Your task to perform on an android device: turn off translation in the chrome app Image 0: 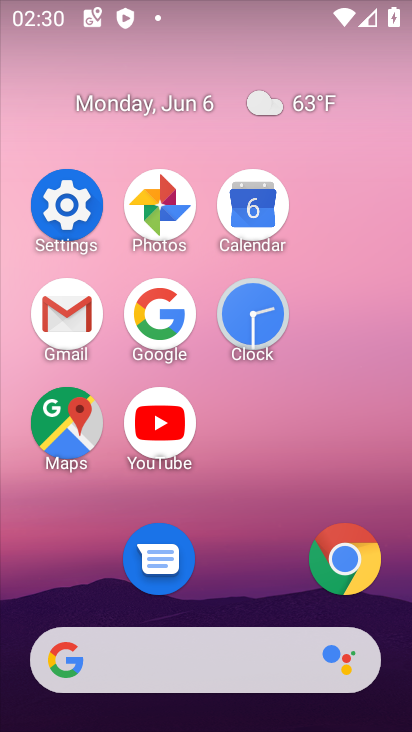
Step 0: click (356, 572)
Your task to perform on an android device: turn off translation in the chrome app Image 1: 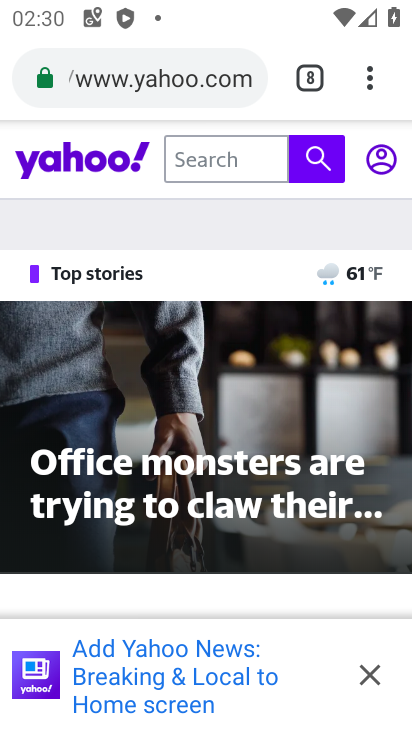
Step 1: click (377, 74)
Your task to perform on an android device: turn off translation in the chrome app Image 2: 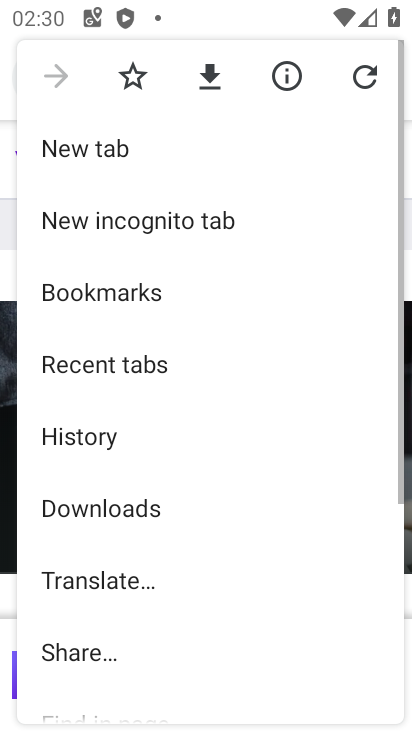
Step 2: drag from (165, 567) to (225, 222)
Your task to perform on an android device: turn off translation in the chrome app Image 3: 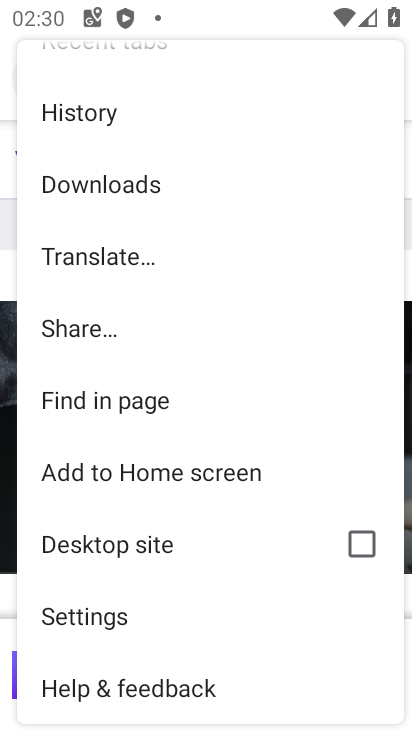
Step 3: click (151, 627)
Your task to perform on an android device: turn off translation in the chrome app Image 4: 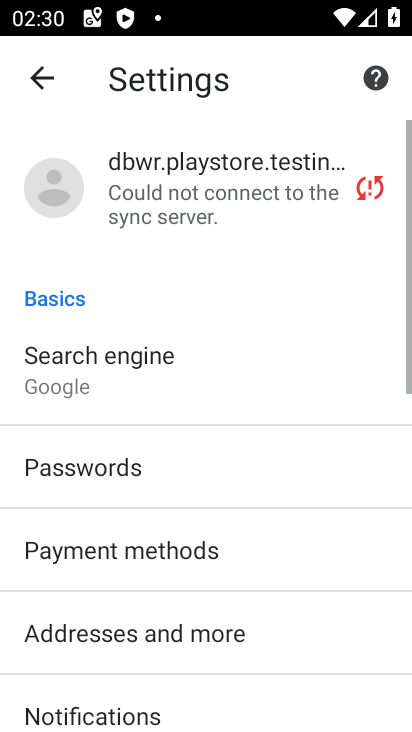
Step 4: drag from (142, 610) to (167, 255)
Your task to perform on an android device: turn off translation in the chrome app Image 5: 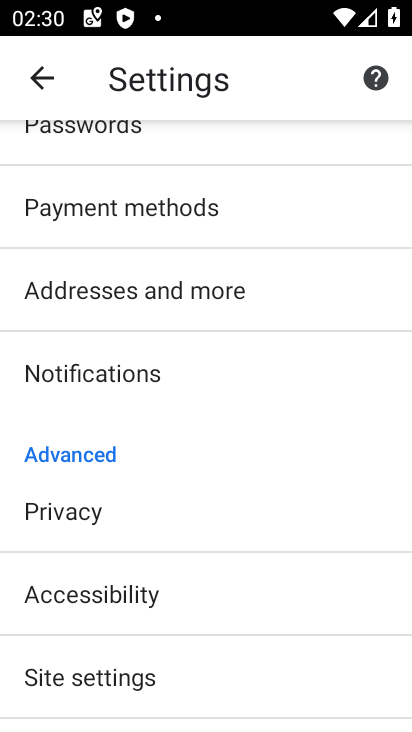
Step 5: drag from (178, 578) to (246, 246)
Your task to perform on an android device: turn off translation in the chrome app Image 6: 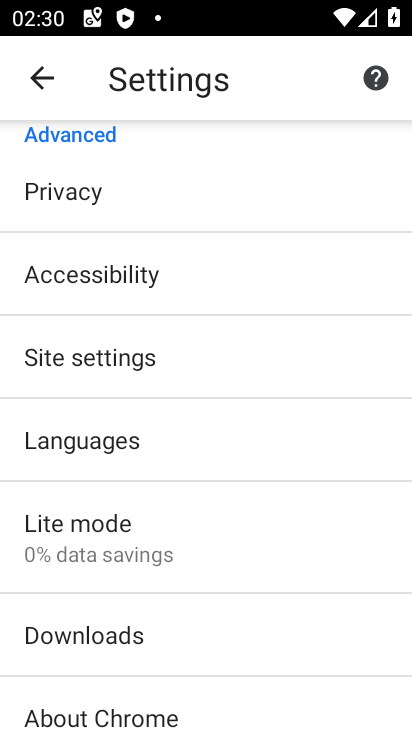
Step 6: click (178, 441)
Your task to perform on an android device: turn off translation in the chrome app Image 7: 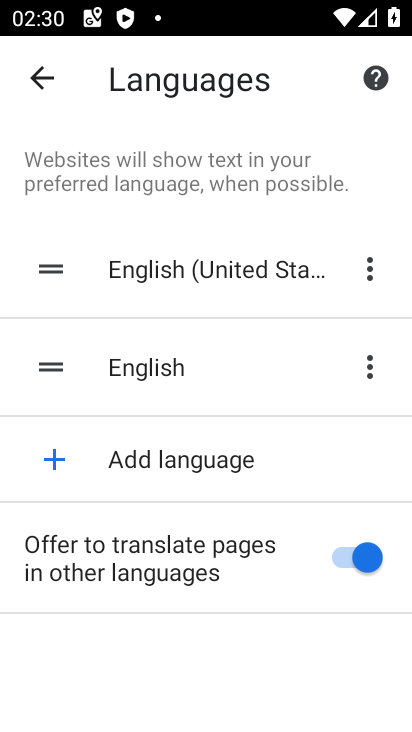
Step 7: click (382, 562)
Your task to perform on an android device: turn off translation in the chrome app Image 8: 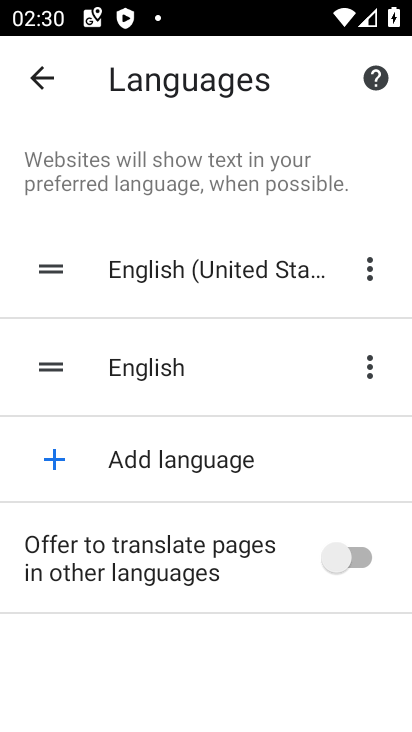
Step 8: task complete